Your task to perform on an android device: turn off priority inbox in the gmail app Image 0: 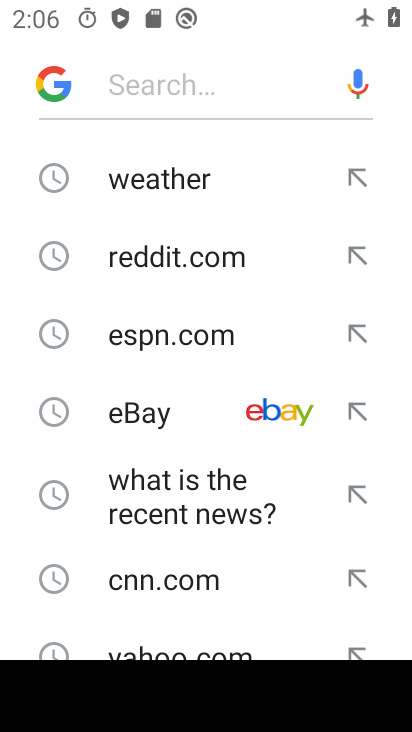
Step 0: press home button
Your task to perform on an android device: turn off priority inbox in the gmail app Image 1: 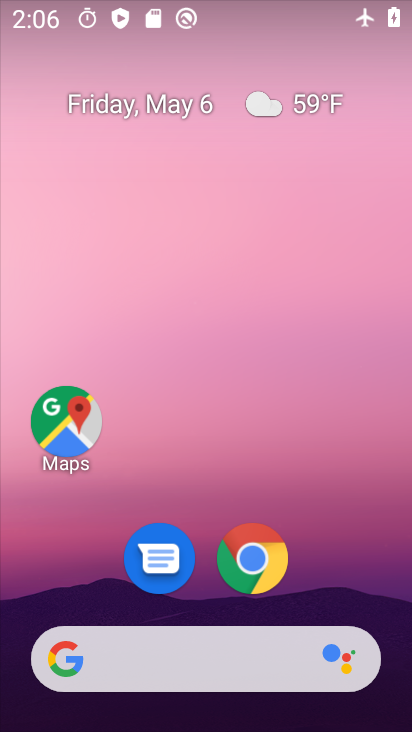
Step 1: drag from (224, 724) to (214, 276)
Your task to perform on an android device: turn off priority inbox in the gmail app Image 2: 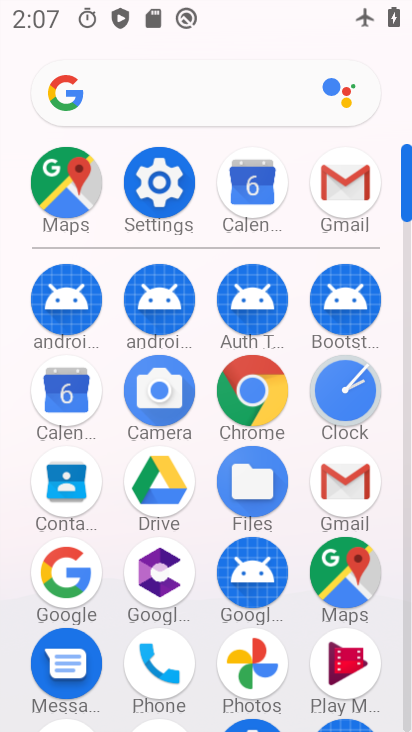
Step 2: click (351, 182)
Your task to perform on an android device: turn off priority inbox in the gmail app Image 3: 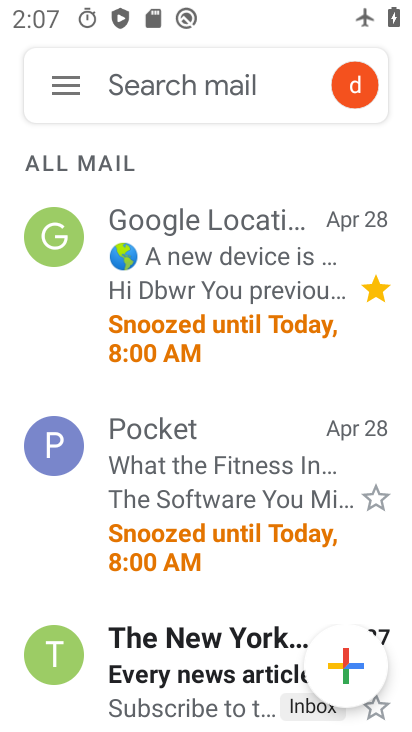
Step 3: click (71, 90)
Your task to perform on an android device: turn off priority inbox in the gmail app Image 4: 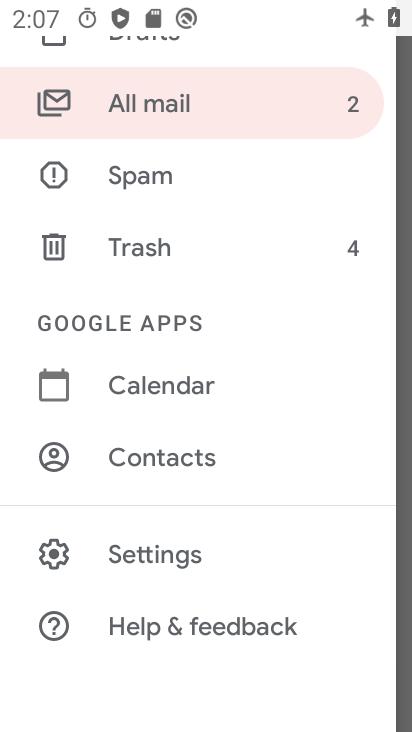
Step 4: drag from (146, 138) to (162, 98)
Your task to perform on an android device: turn off priority inbox in the gmail app Image 5: 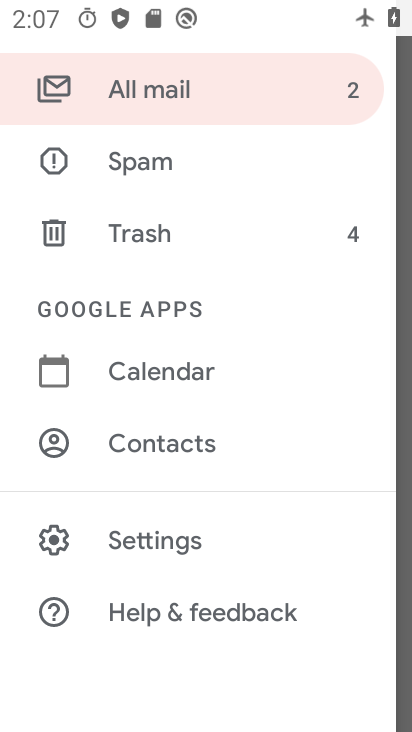
Step 5: click (145, 548)
Your task to perform on an android device: turn off priority inbox in the gmail app Image 6: 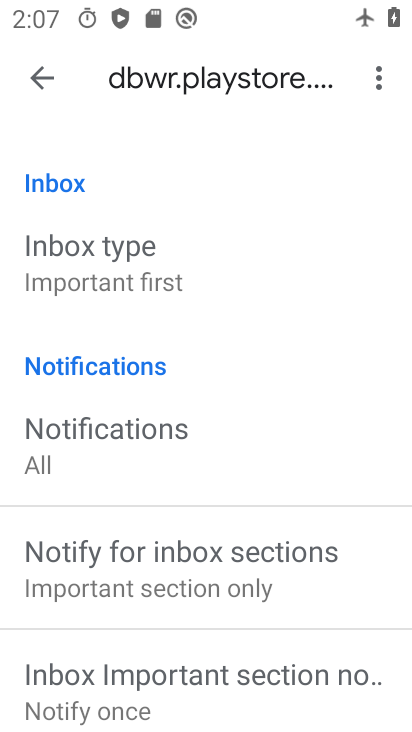
Step 6: click (114, 268)
Your task to perform on an android device: turn off priority inbox in the gmail app Image 7: 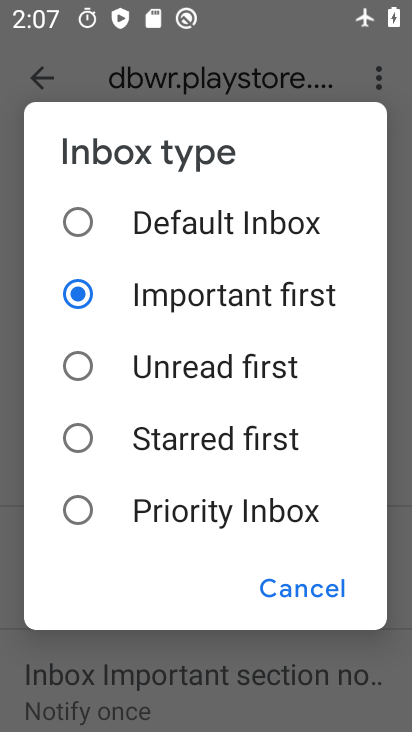
Step 7: click (292, 586)
Your task to perform on an android device: turn off priority inbox in the gmail app Image 8: 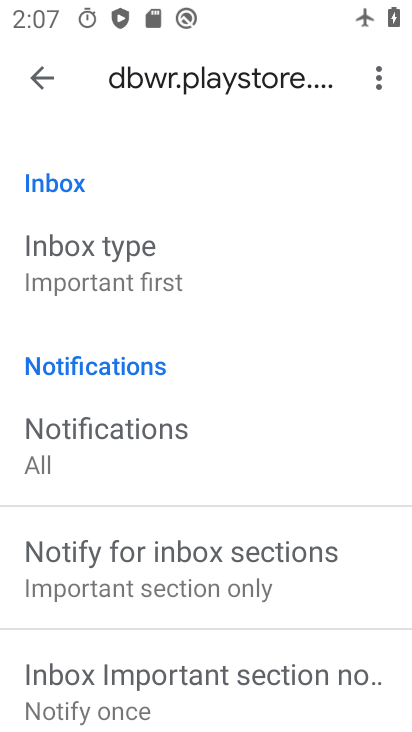
Step 8: task complete